Your task to perform on an android device: turn off airplane mode Image 0: 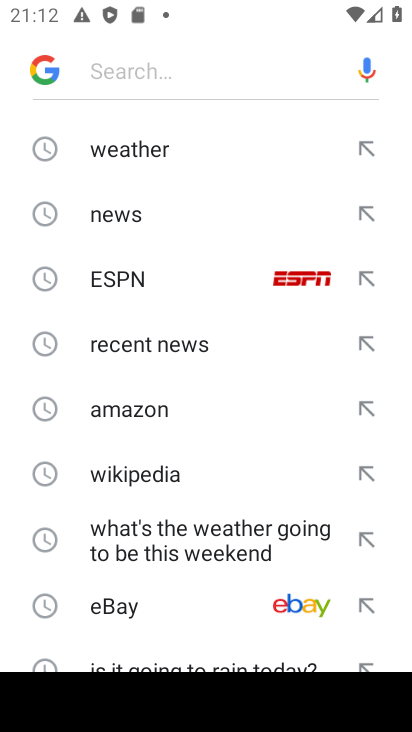
Step 0: press back button
Your task to perform on an android device: turn off airplane mode Image 1: 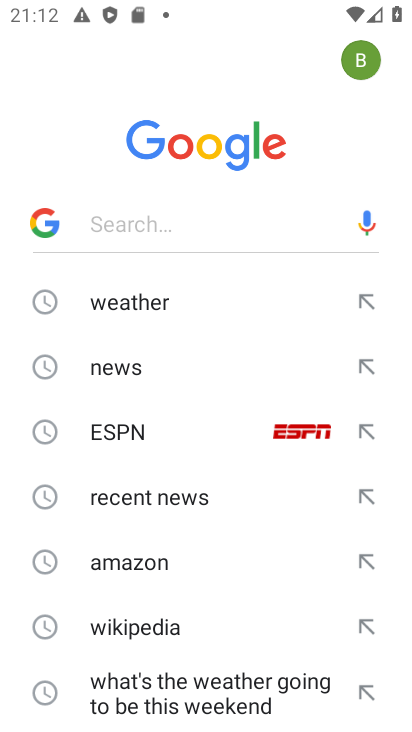
Step 1: press back button
Your task to perform on an android device: turn off airplane mode Image 2: 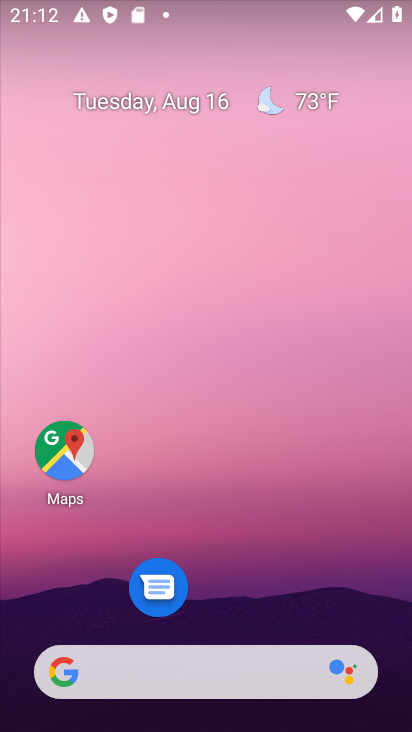
Step 2: drag from (240, 620) to (130, 37)
Your task to perform on an android device: turn off airplane mode Image 3: 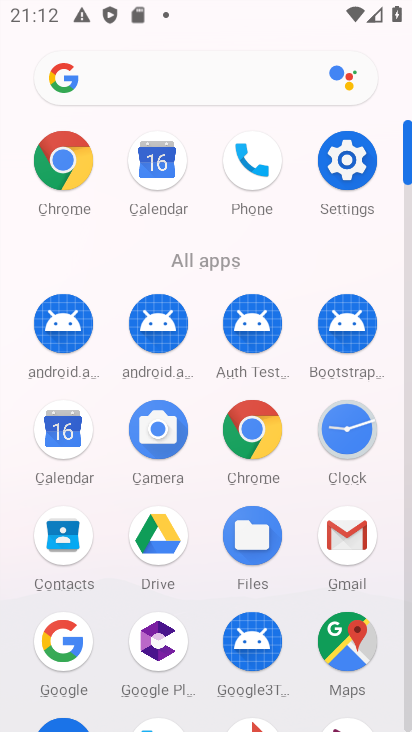
Step 3: click (360, 160)
Your task to perform on an android device: turn off airplane mode Image 4: 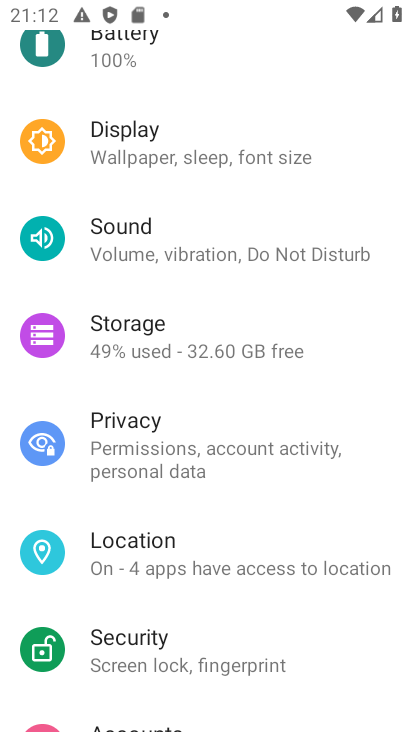
Step 4: drag from (360, 160) to (281, 564)
Your task to perform on an android device: turn off airplane mode Image 5: 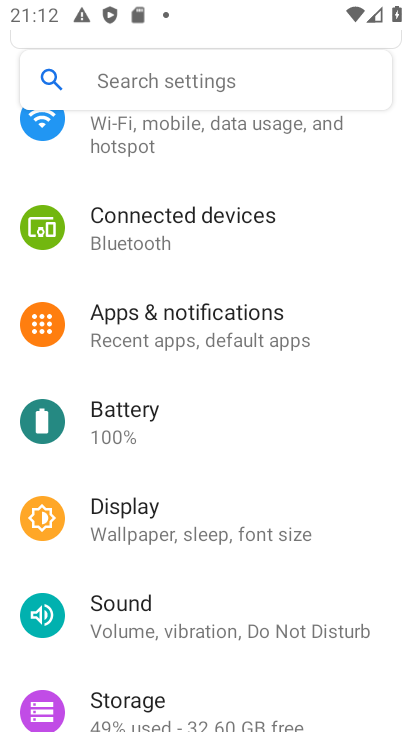
Step 5: click (181, 152)
Your task to perform on an android device: turn off airplane mode Image 6: 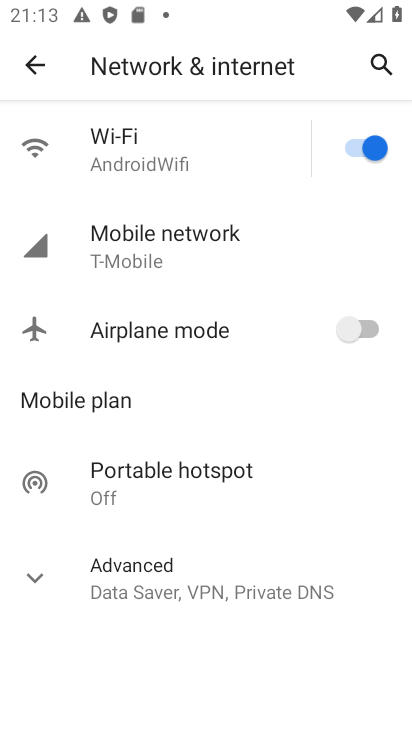
Step 6: task complete